Your task to perform on an android device: turn on javascript in the chrome app Image 0: 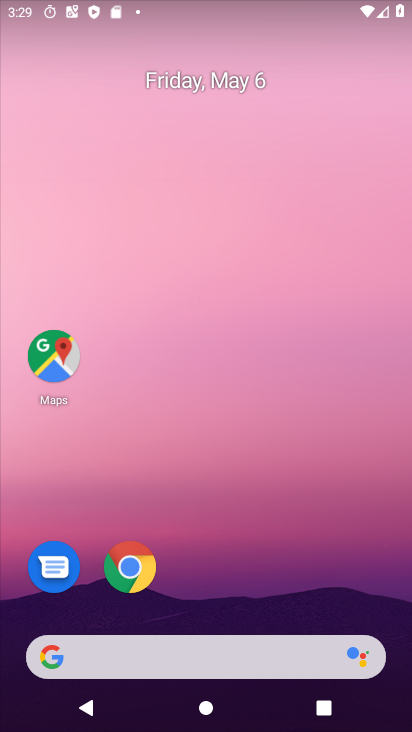
Step 0: click (130, 566)
Your task to perform on an android device: turn on javascript in the chrome app Image 1: 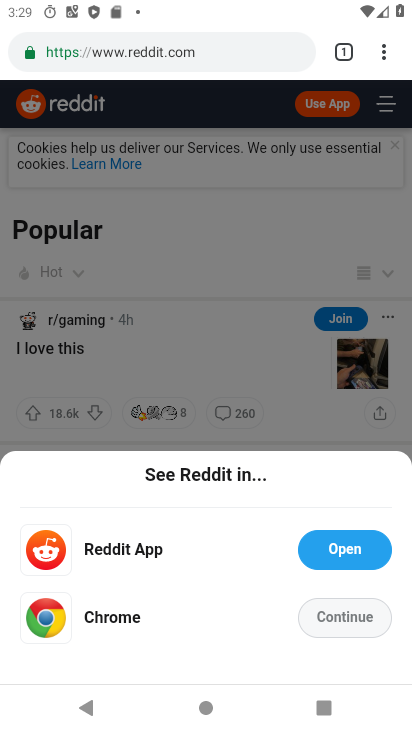
Step 1: click (185, 53)
Your task to perform on an android device: turn on javascript in the chrome app Image 2: 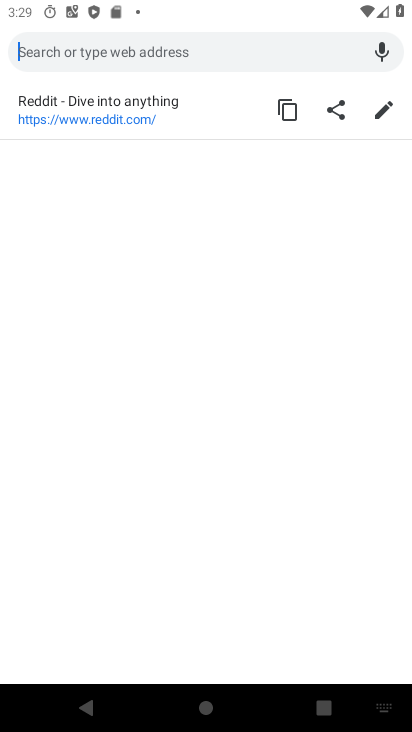
Step 2: click (115, 240)
Your task to perform on an android device: turn on javascript in the chrome app Image 3: 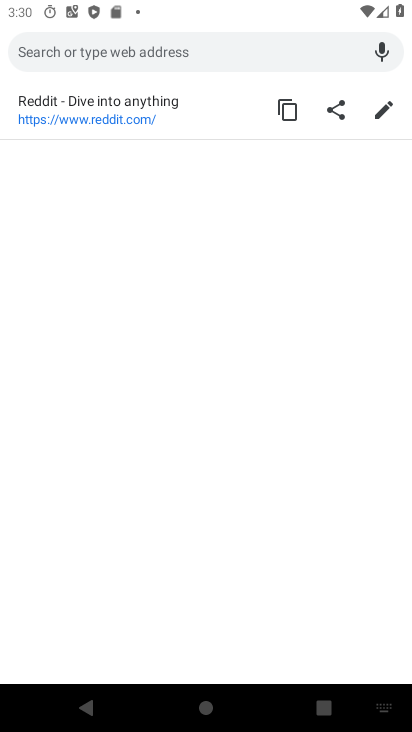
Step 3: click (75, 706)
Your task to perform on an android device: turn on javascript in the chrome app Image 4: 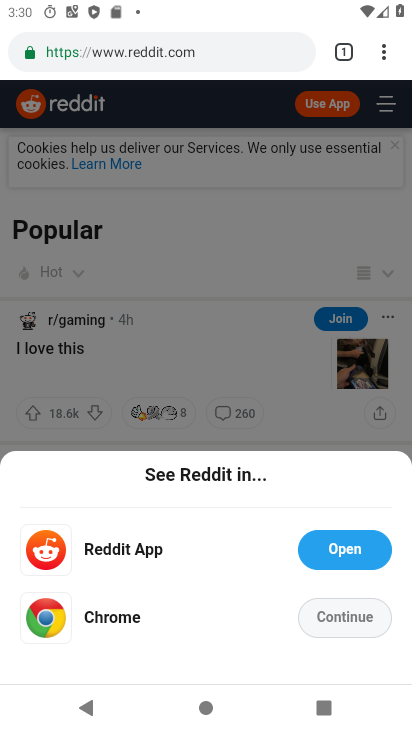
Step 4: click (382, 57)
Your task to perform on an android device: turn on javascript in the chrome app Image 5: 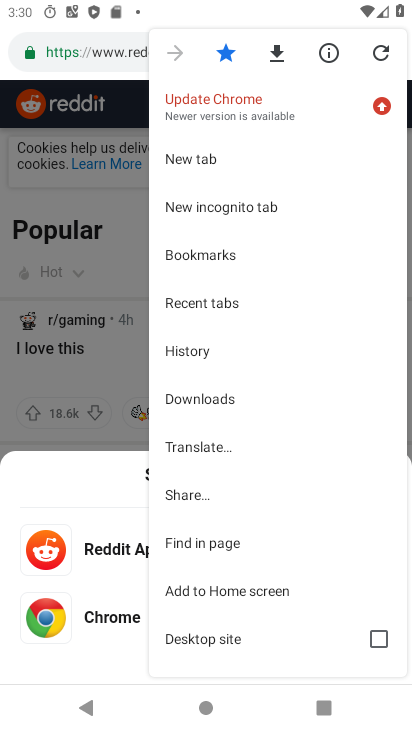
Step 5: drag from (265, 520) to (338, 106)
Your task to perform on an android device: turn on javascript in the chrome app Image 6: 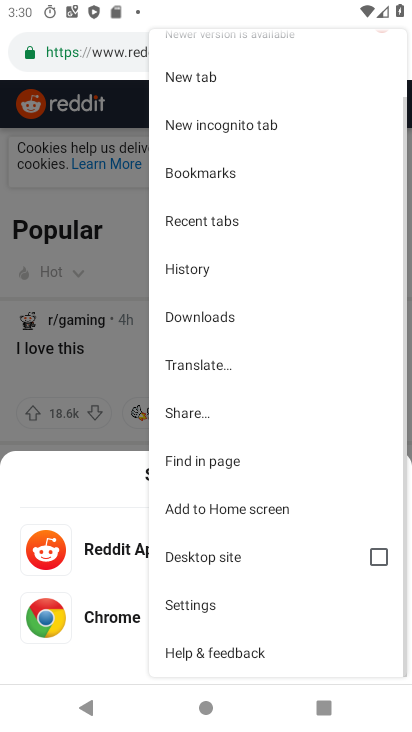
Step 6: click (197, 623)
Your task to perform on an android device: turn on javascript in the chrome app Image 7: 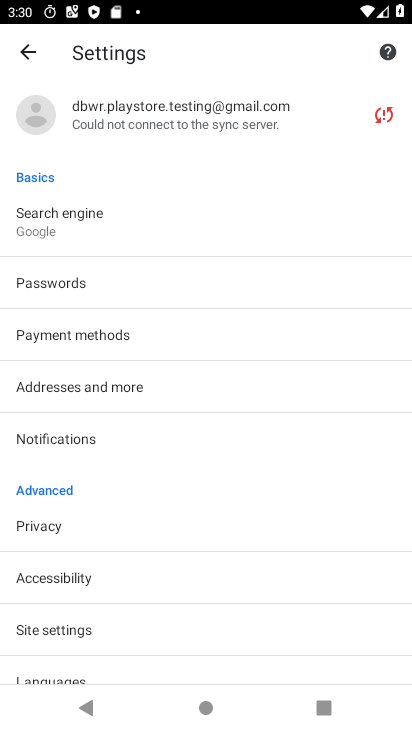
Step 7: click (57, 640)
Your task to perform on an android device: turn on javascript in the chrome app Image 8: 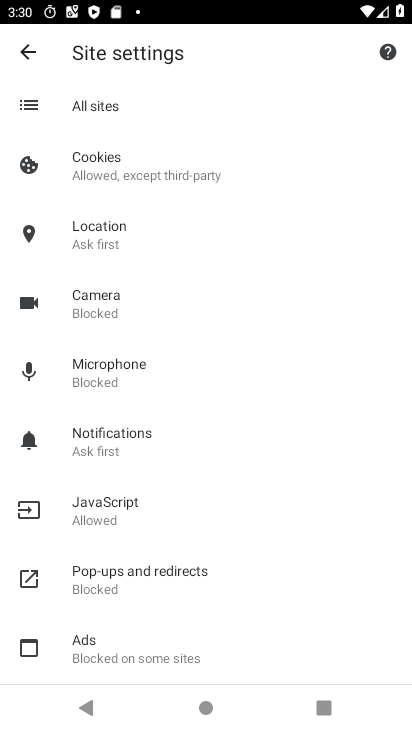
Step 8: click (143, 510)
Your task to perform on an android device: turn on javascript in the chrome app Image 9: 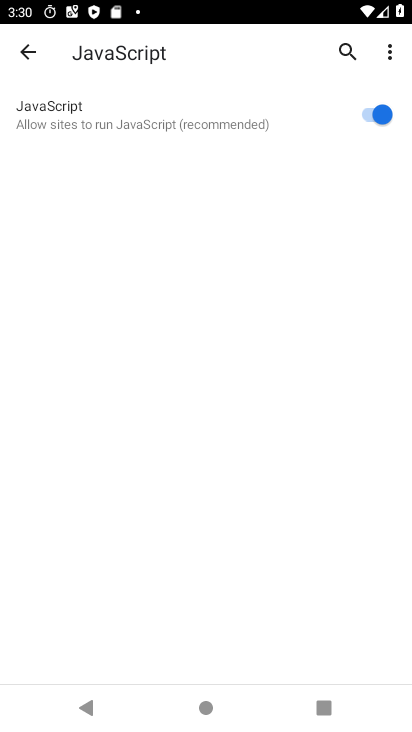
Step 9: task complete